Your task to perform on an android device: show emergency info Image 0: 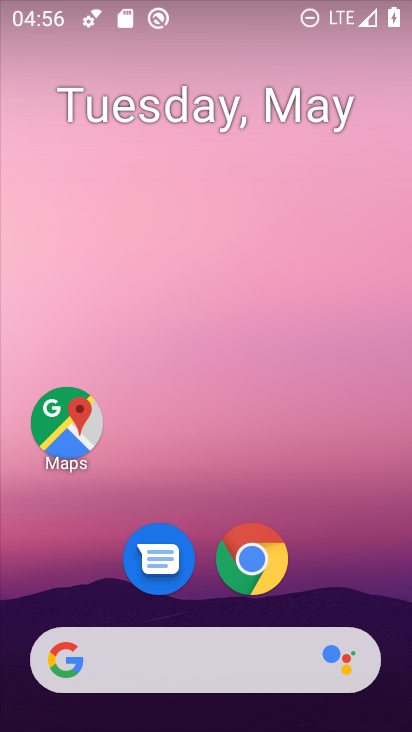
Step 0: drag from (207, 722) to (248, 128)
Your task to perform on an android device: show emergency info Image 1: 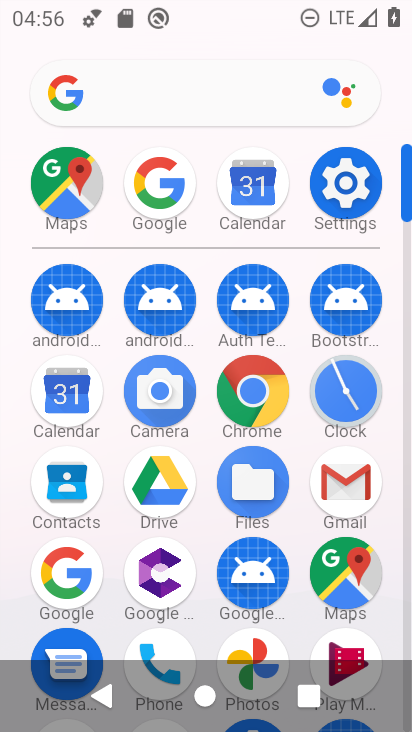
Step 1: click (332, 188)
Your task to perform on an android device: show emergency info Image 2: 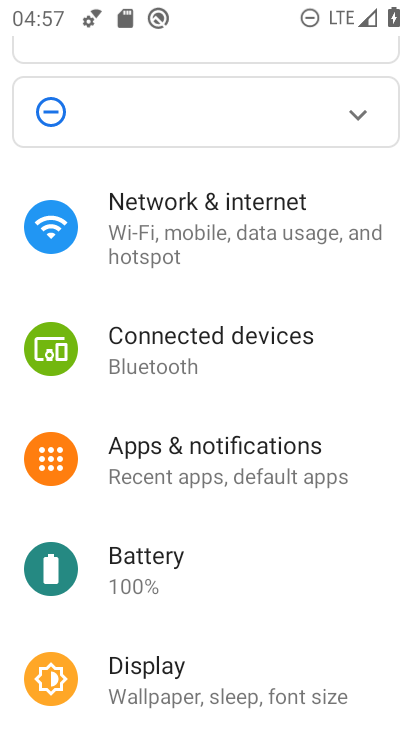
Step 2: drag from (187, 706) to (187, 339)
Your task to perform on an android device: show emergency info Image 3: 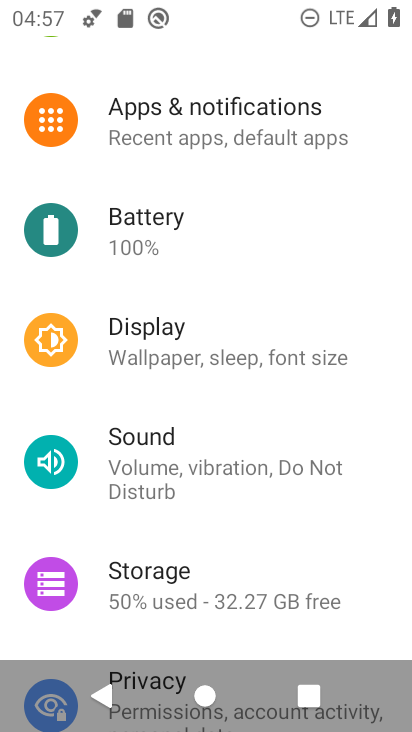
Step 3: drag from (220, 650) to (225, 311)
Your task to perform on an android device: show emergency info Image 4: 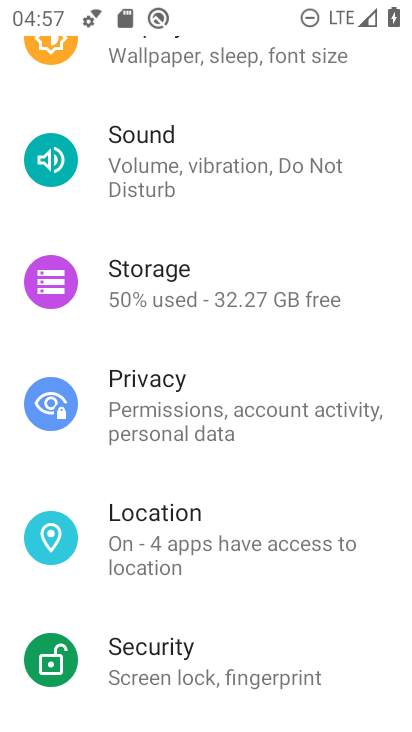
Step 4: drag from (216, 702) to (232, 280)
Your task to perform on an android device: show emergency info Image 5: 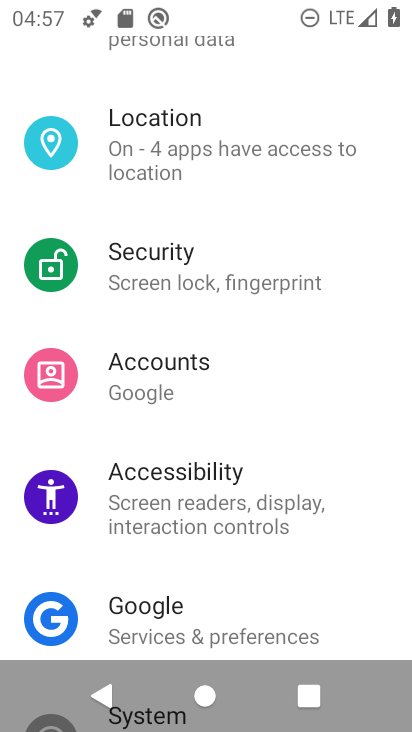
Step 5: drag from (203, 648) to (206, 243)
Your task to perform on an android device: show emergency info Image 6: 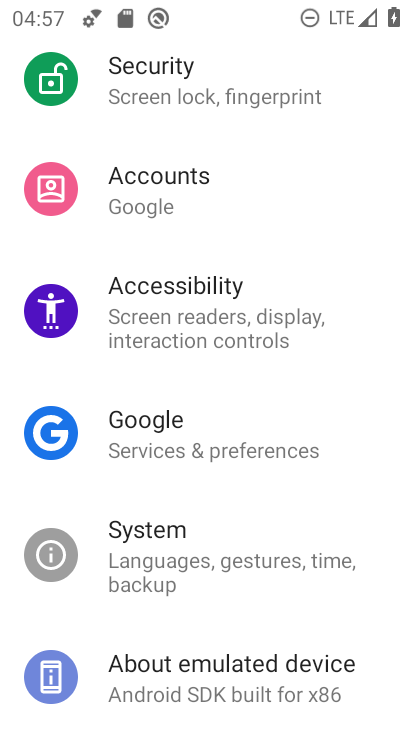
Step 6: click (185, 685)
Your task to perform on an android device: show emergency info Image 7: 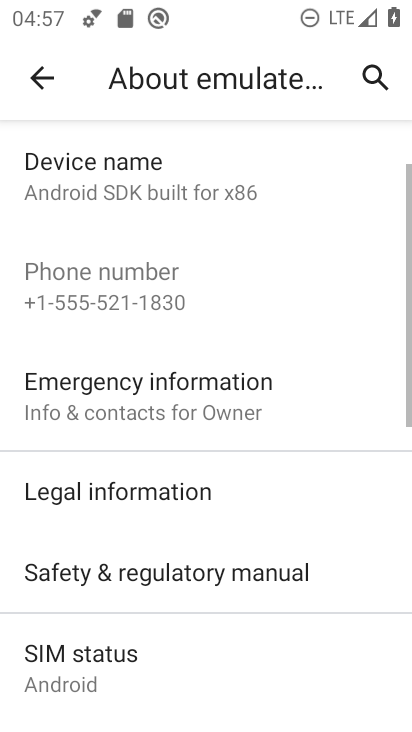
Step 7: click (99, 407)
Your task to perform on an android device: show emergency info Image 8: 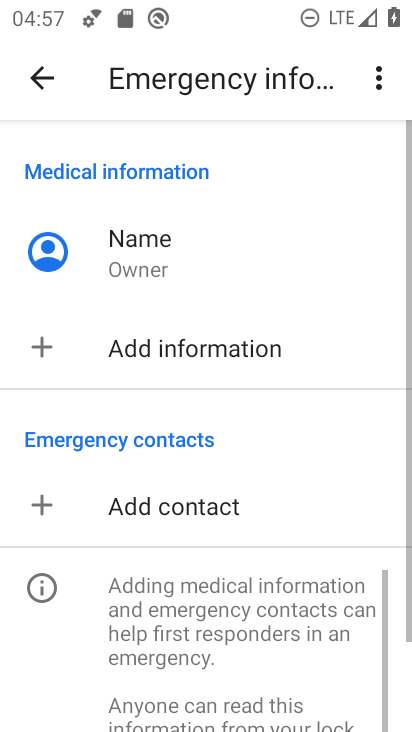
Step 8: task complete